Your task to perform on an android device: choose inbox layout in the gmail app Image 0: 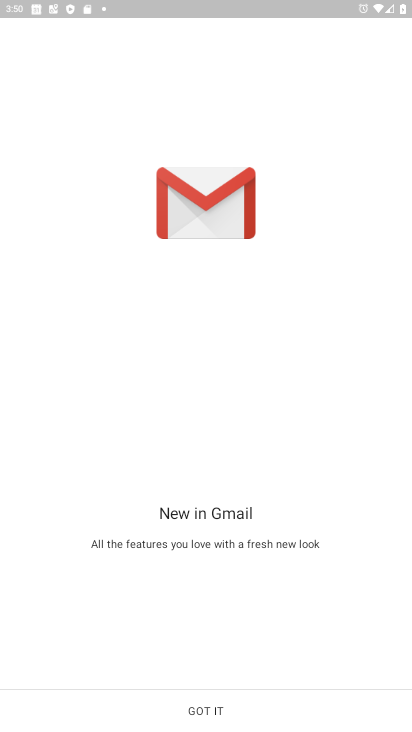
Step 0: click (220, 706)
Your task to perform on an android device: choose inbox layout in the gmail app Image 1: 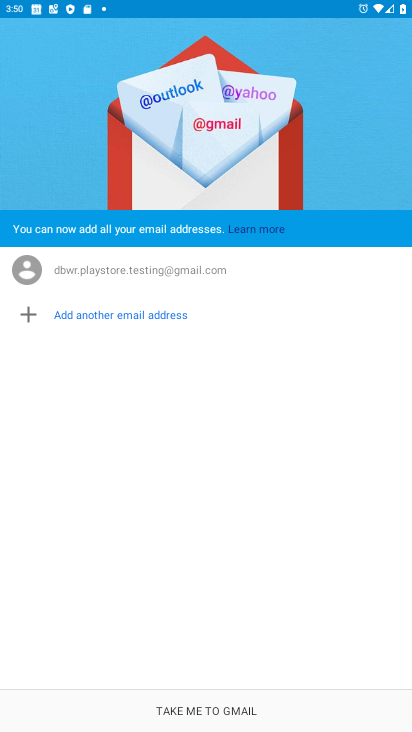
Step 1: click (226, 708)
Your task to perform on an android device: choose inbox layout in the gmail app Image 2: 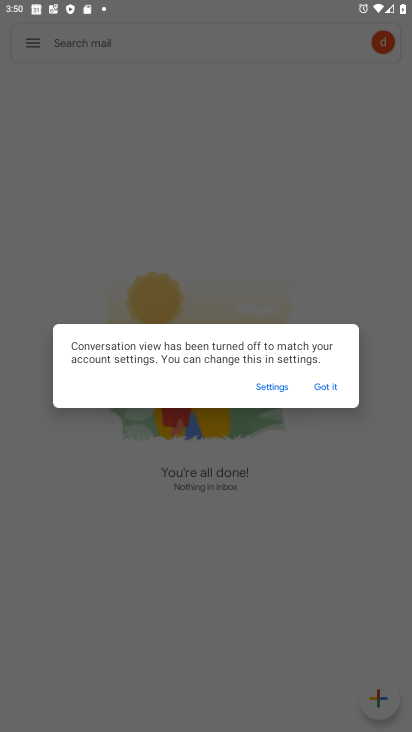
Step 2: click (331, 385)
Your task to perform on an android device: choose inbox layout in the gmail app Image 3: 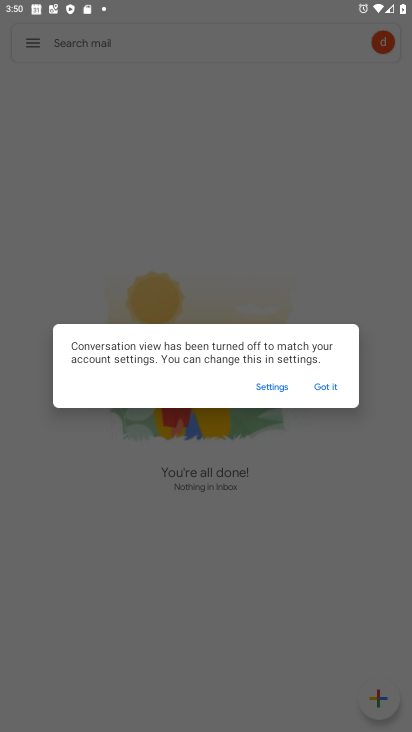
Step 3: click (329, 385)
Your task to perform on an android device: choose inbox layout in the gmail app Image 4: 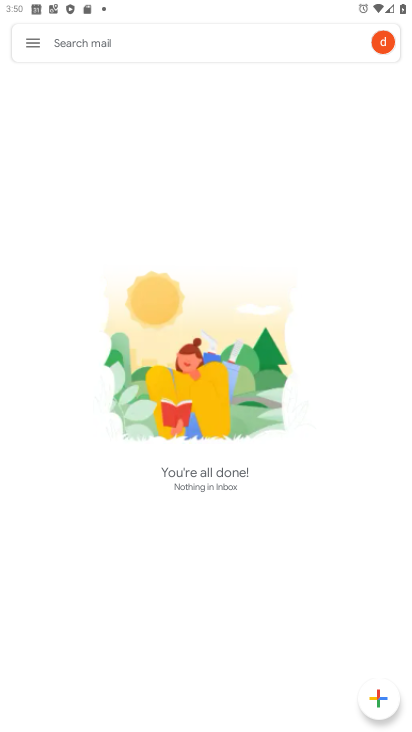
Step 4: press home button
Your task to perform on an android device: choose inbox layout in the gmail app Image 5: 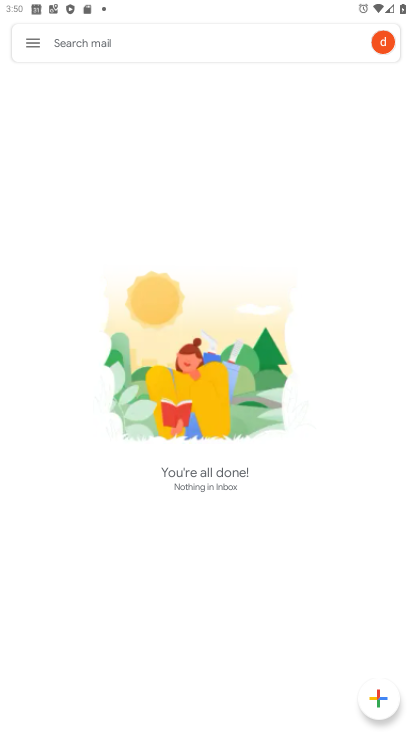
Step 5: press home button
Your task to perform on an android device: choose inbox layout in the gmail app Image 6: 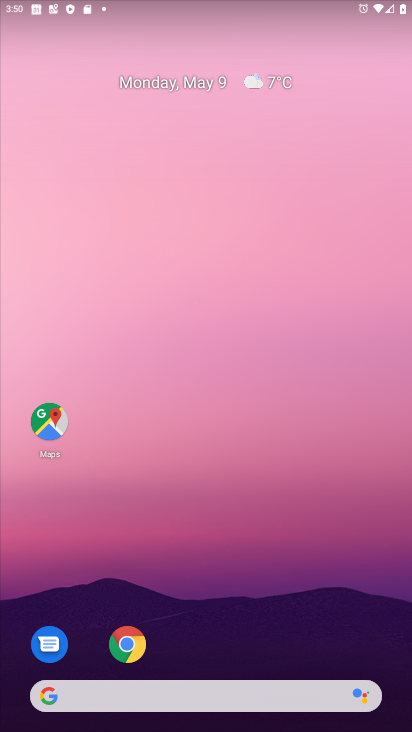
Step 6: drag from (187, 376) to (87, 25)
Your task to perform on an android device: choose inbox layout in the gmail app Image 7: 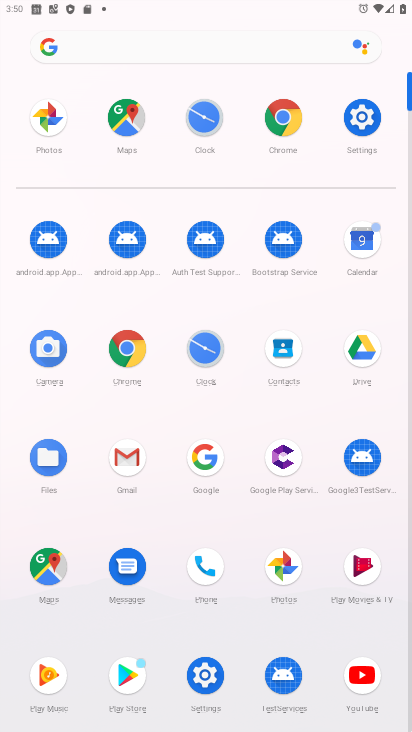
Step 7: click (118, 467)
Your task to perform on an android device: choose inbox layout in the gmail app Image 8: 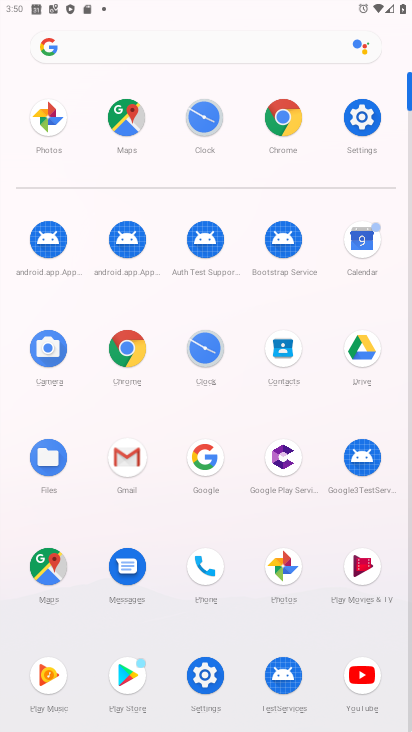
Step 8: click (125, 450)
Your task to perform on an android device: choose inbox layout in the gmail app Image 9: 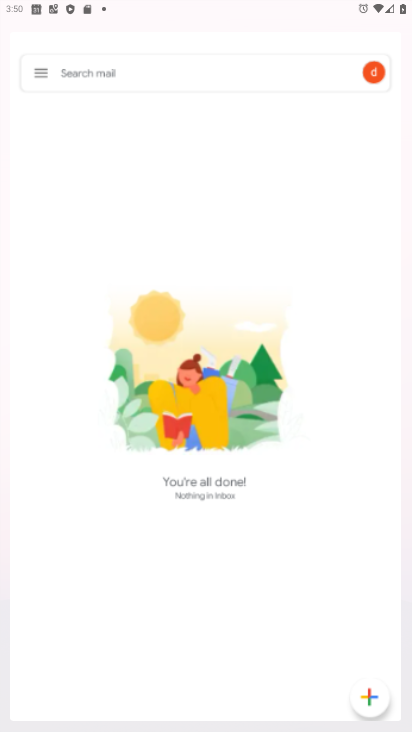
Step 9: click (126, 454)
Your task to perform on an android device: choose inbox layout in the gmail app Image 10: 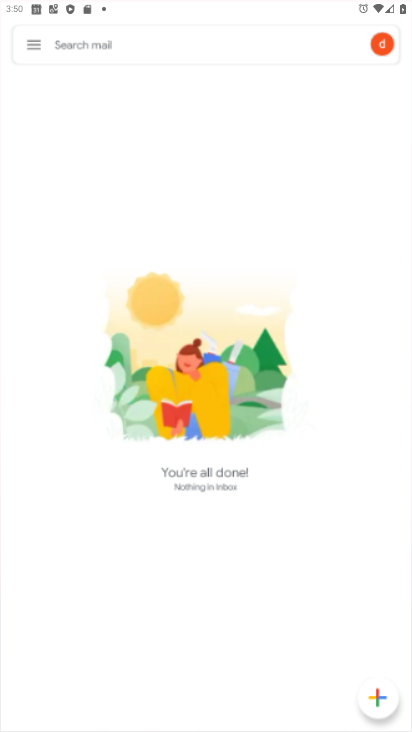
Step 10: click (126, 456)
Your task to perform on an android device: choose inbox layout in the gmail app Image 11: 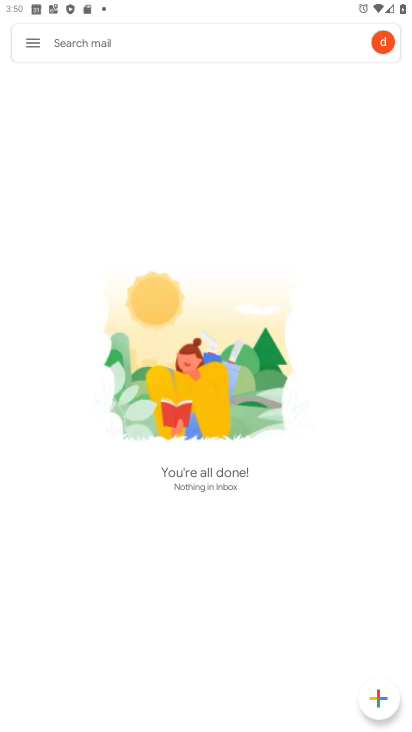
Step 11: click (23, 42)
Your task to perform on an android device: choose inbox layout in the gmail app Image 12: 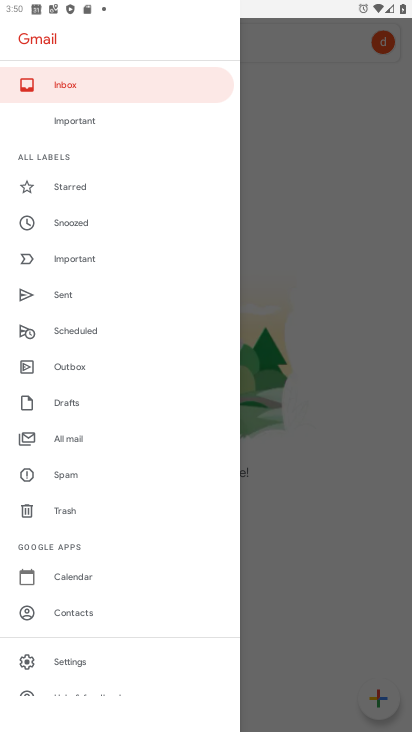
Step 12: click (54, 443)
Your task to perform on an android device: choose inbox layout in the gmail app Image 13: 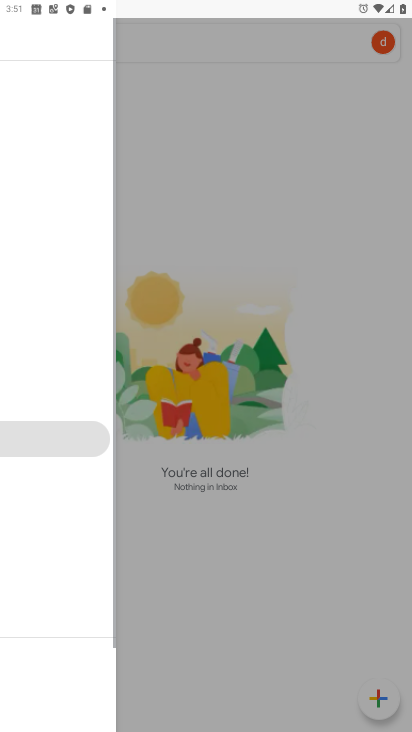
Step 13: click (54, 442)
Your task to perform on an android device: choose inbox layout in the gmail app Image 14: 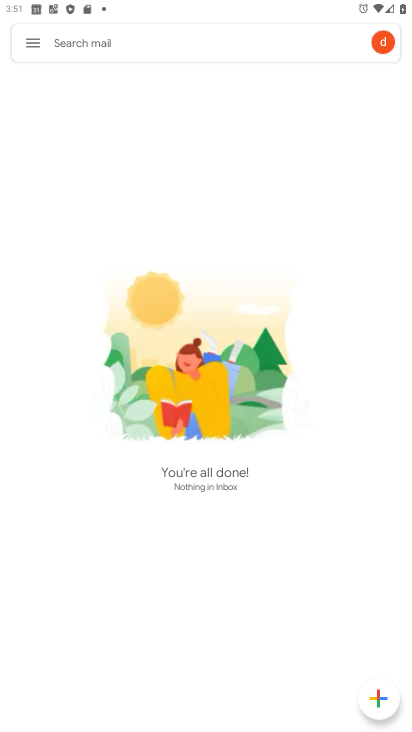
Step 14: click (62, 424)
Your task to perform on an android device: choose inbox layout in the gmail app Image 15: 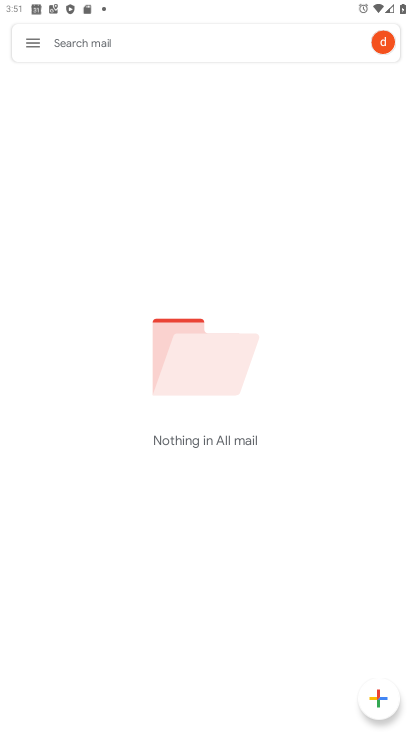
Step 15: click (66, 424)
Your task to perform on an android device: choose inbox layout in the gmail app Image 16: 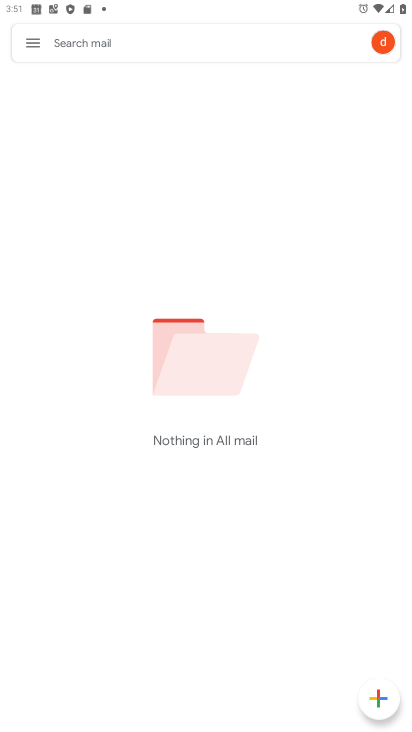
Step 16: task complete